Your task to perform on an android device: check the backup settings in the google photos Image 0: 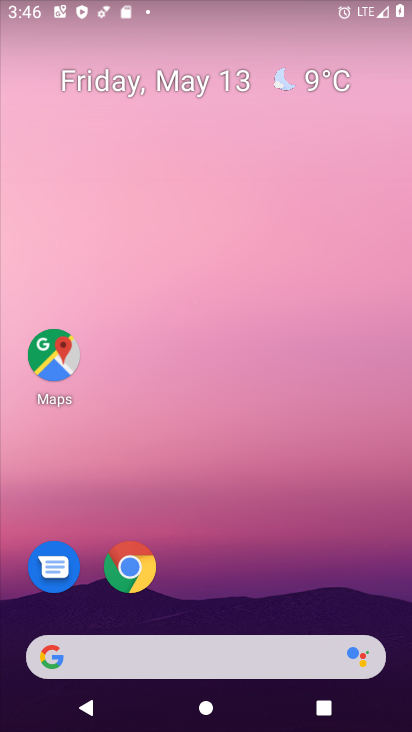
Step 0: drag from (234, 609) to (278, 11)
Your task to perform on an android device: check the backup settings in the google photos Image 1: 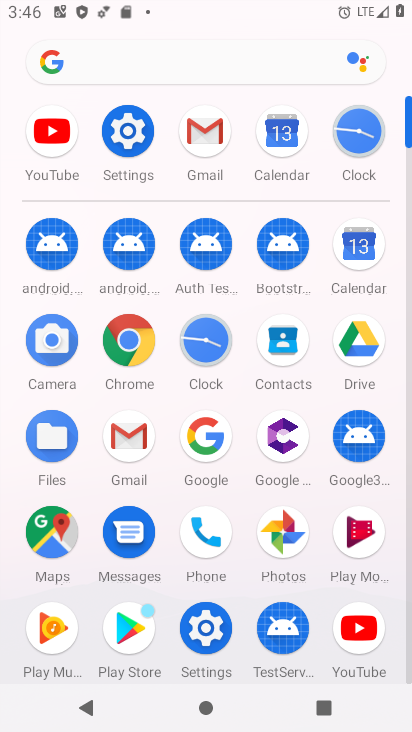
Step 1: click (280, 532)
Your task to perform on an android device: check the backup settings in the google photos Image 2: 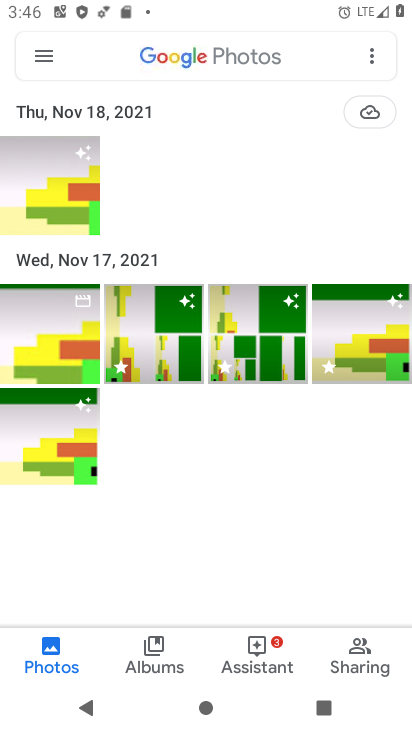
Step 2: click (41, 55)
Your task to perform on an android device: check the backup settings in the google photos Image 3: 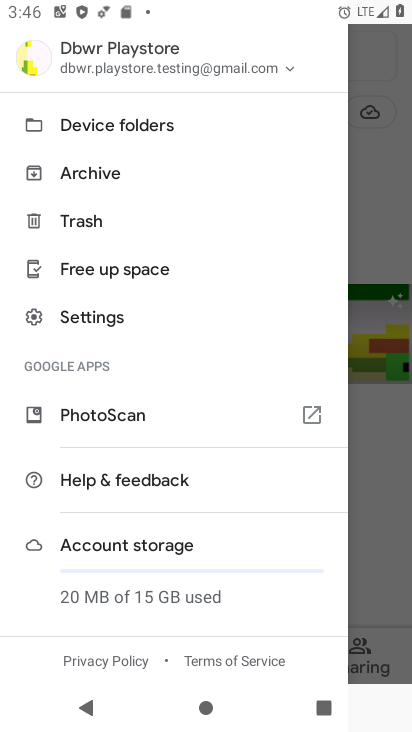
Step 3: click (85, 315)
Your task to perform on an android device: check the backup settings in the google photos Image 4: 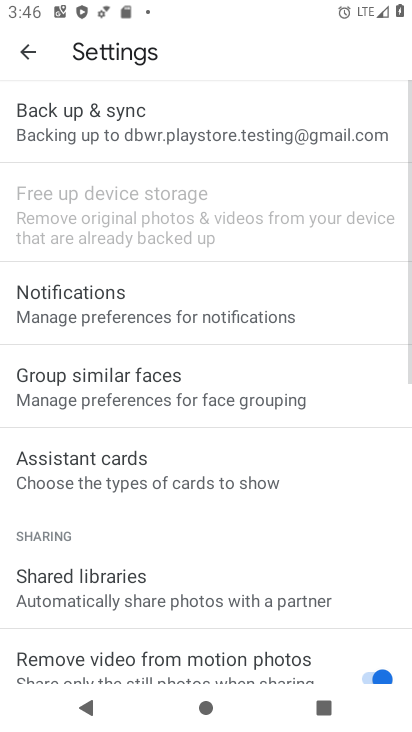
Step 4: click (67, 139)
Your task to perform on an android device: check the backup settings in the google photos Image 5: 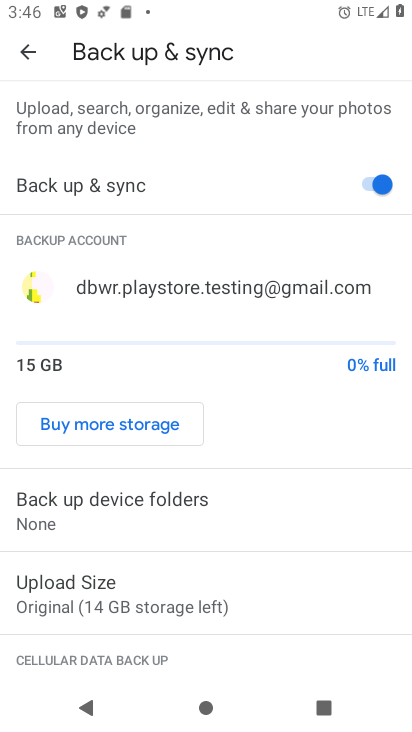
Step 5: task complete